Your task to perform on an android device: Go to location settings Image 0: 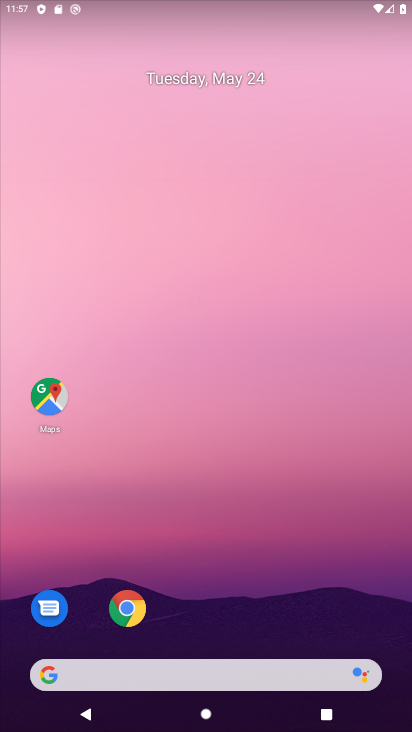
Step 0: drag from (369, 591) to (322, 148)
Your task to perform on an android device: Go to location settings Image 1: 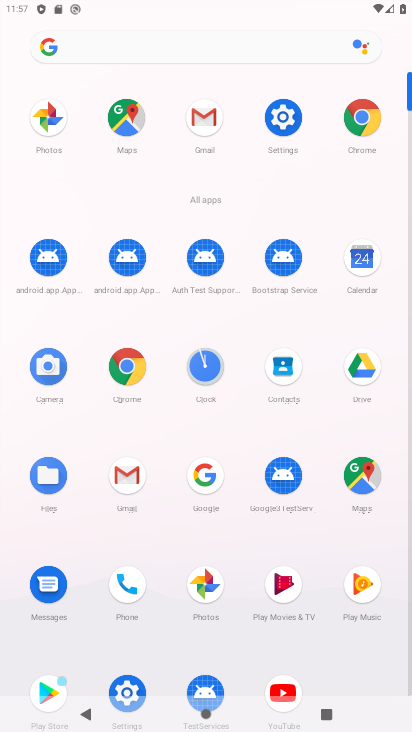
Step 1: click (273, 117)
Your task to perform on an android device: Go to location settings Image 2: 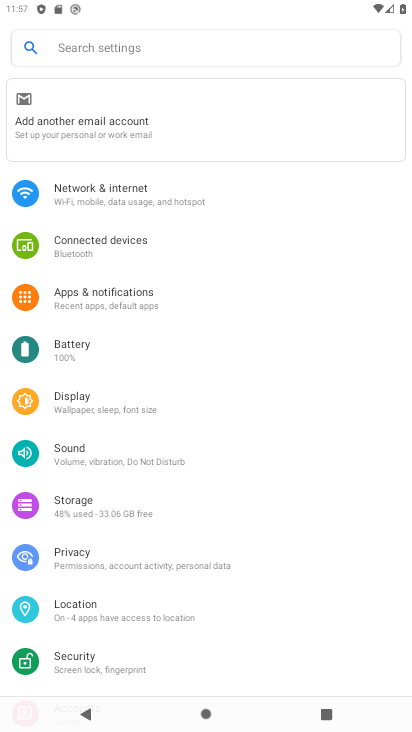
Step 2: click (112, 610)
Your task to perform on an android device: Go to location settings Image 3: 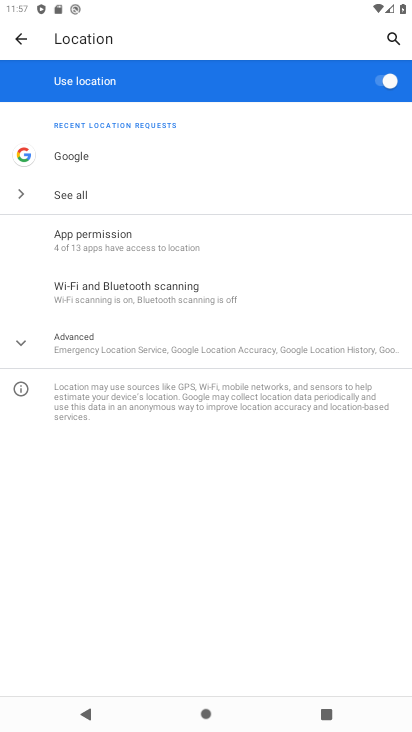
Step 3: click (220, 345)
Your task to perform on an android device: Go to location settings Image 4: 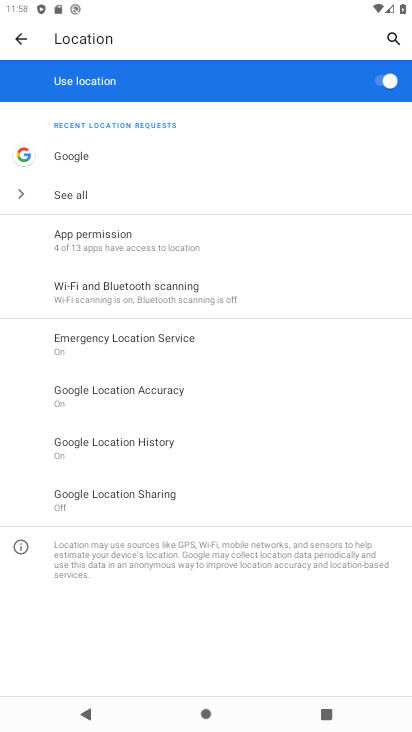
Step 4: task complete